Your task to perform on an android device: read, delete, or share a saved page in the chrome app Image 0: 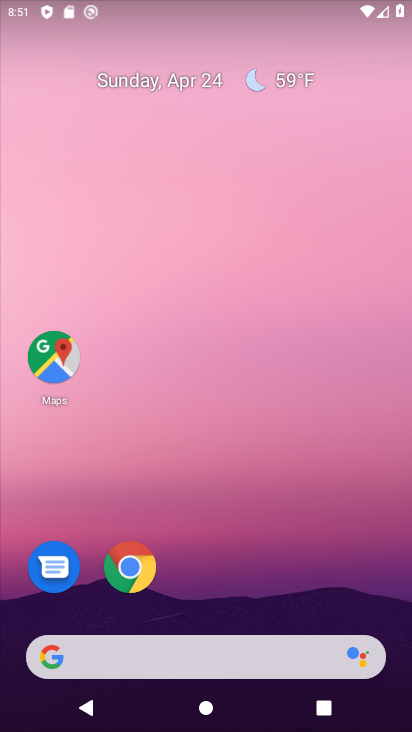
Step 0: click (134, 560)
Your task to perform on an android device: read, delete, or share a saved page in the chrome app Image 1: 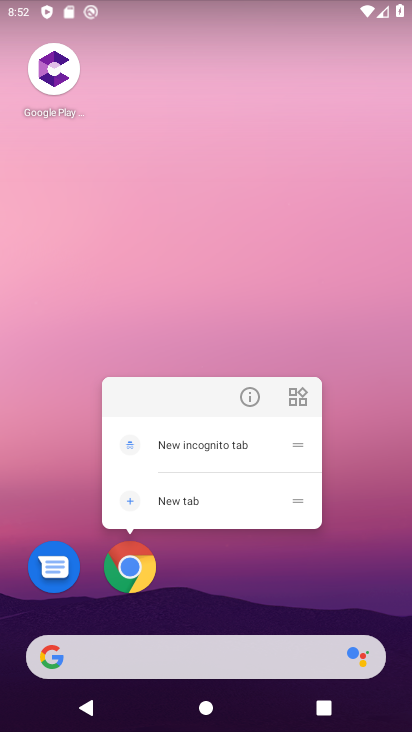
Step 1: click (134, 567)
Your task to perform on an android device: read, delete, or share a saved page in the chrome app Image 2: 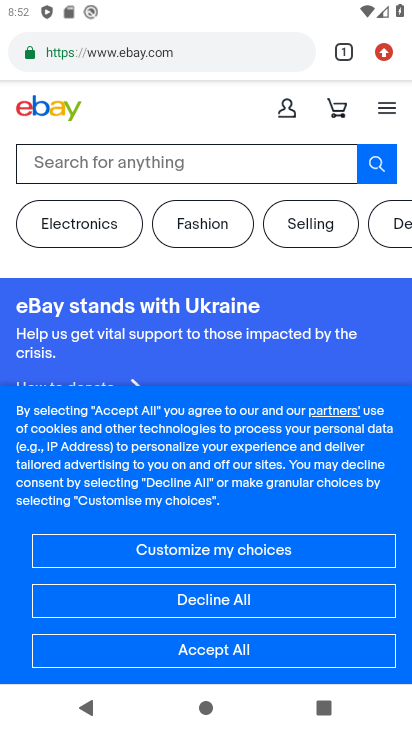
Step 2: click (388, 52)
Your task to perform on an android device: read, delete, or share a saved page in the chrome app Image 3: 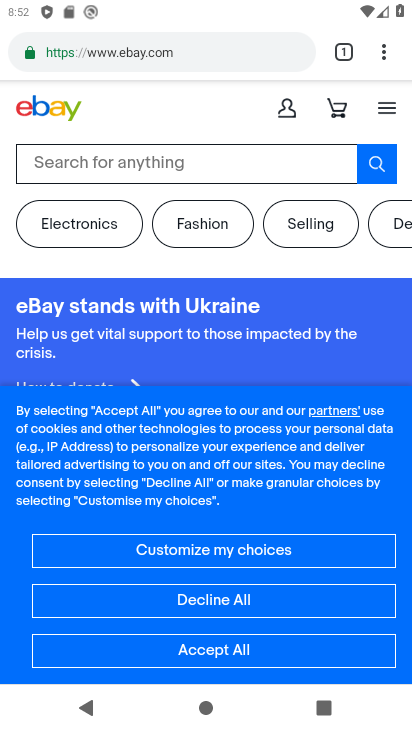
Step 3: click (383, 48)
Your task to perform on an android device: read, delete, or share a saved page in the chrome app Image 4: 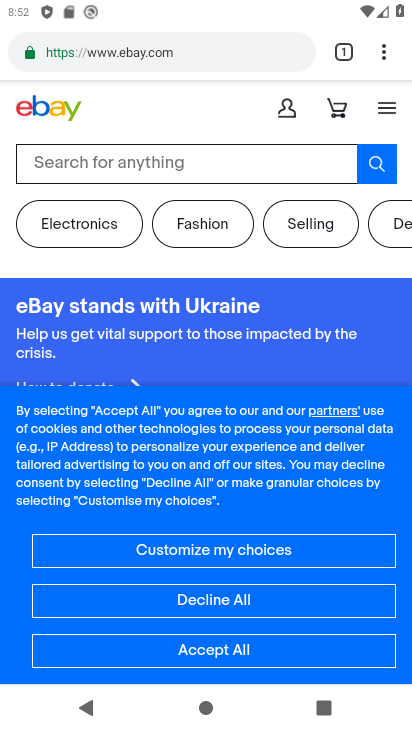
Step 4: click (385, 49)
Your task to perform on an android device: read, delete, or share a saved page in the chrome app Image 5: 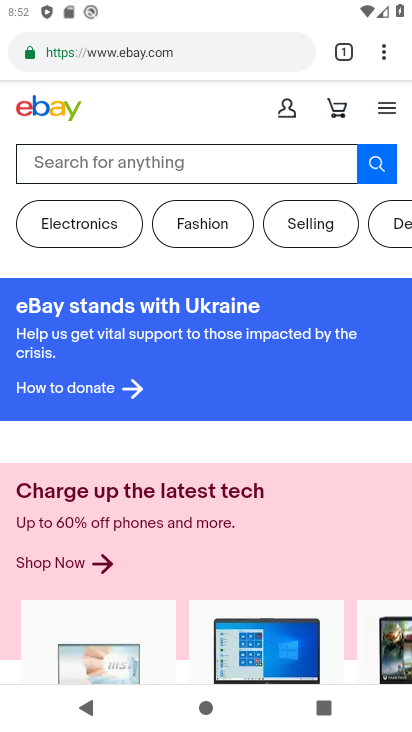
Step 5: click (384, 49)
Your task to perform on an android device: read, delete, or share a saved page in the chrome app Image 6: 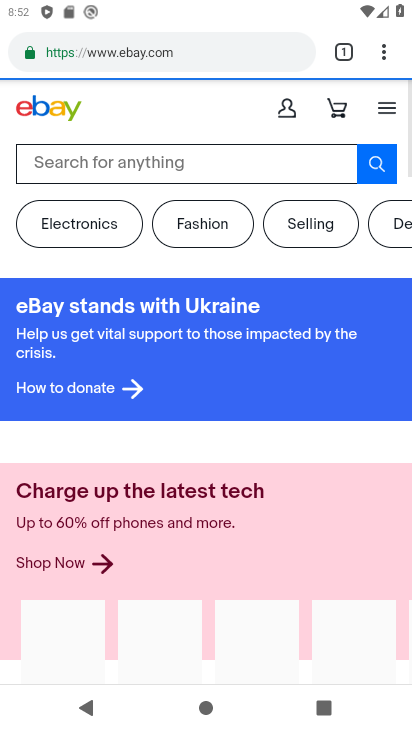
Step 6: click (384, 49)
Your task to perform on an android device: read, delete, or share a saved page in the chrome app Image 7: 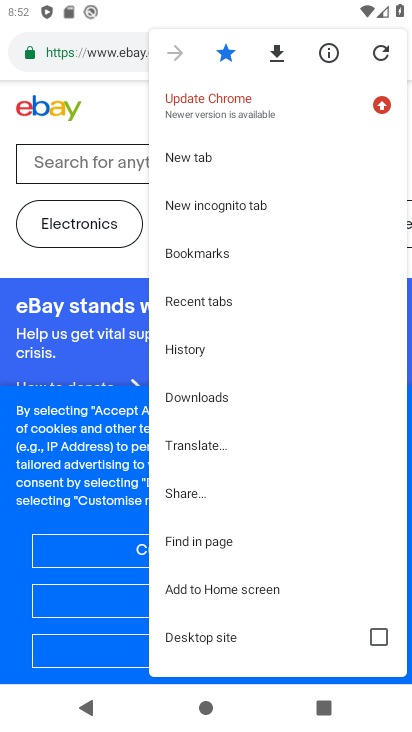
Step 7: click (189, 395)
Your task to perform on an android device: read, delete, or share a saved page in the chrome app Image 8: 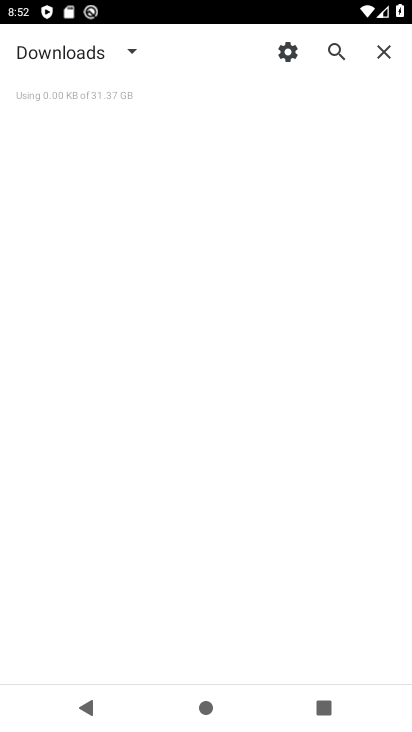
Step 8: task complete